Your task to perform on an android device: manage bookmarks in the chrome app Image 0: 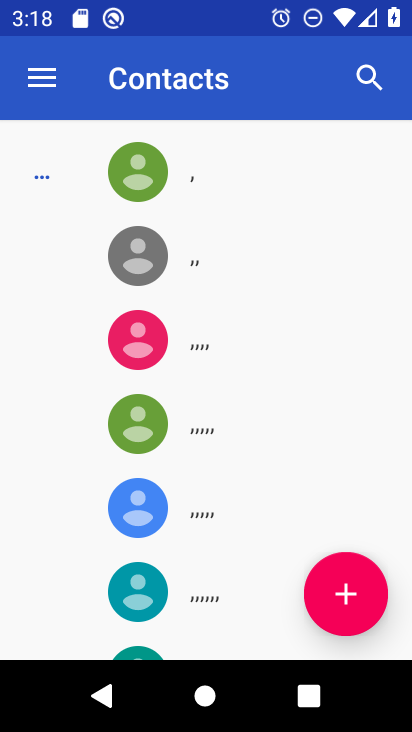
Step 0: press home button
Your task to perform on an android device: manage bookmarks in the chrome app Image 1: 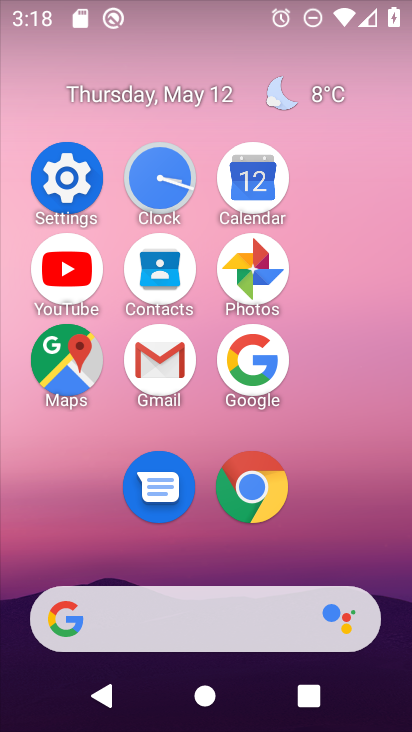
Step 1: click (244, 501)
Your task to perform on an android device: manage bookmarks in the chrome app Image 2: 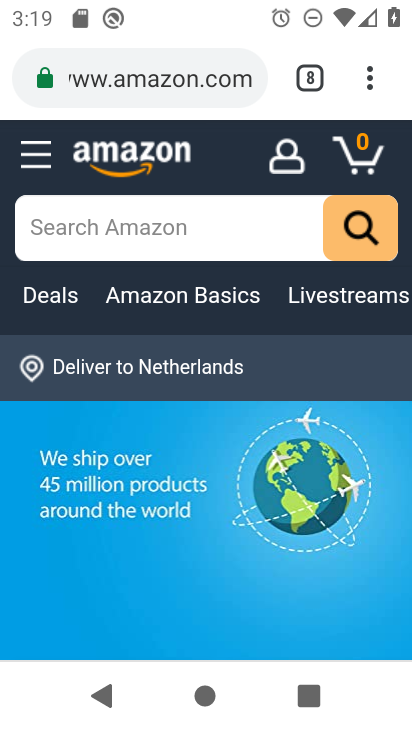
Step 2: click (365, 72)
Your task to perform on an android device: manage bookmarks in the chrome app Image 3: 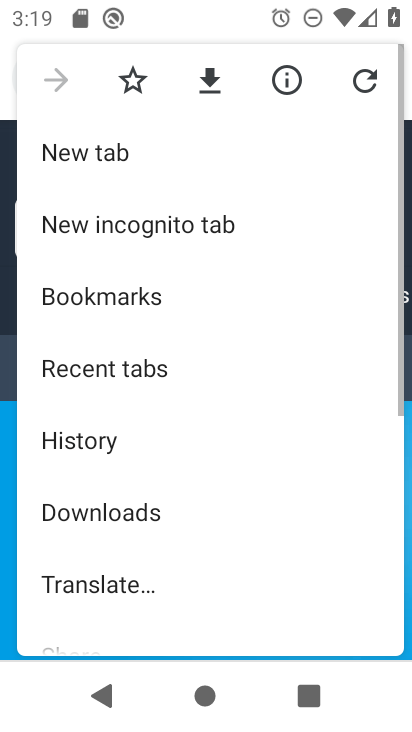
Step 3: drag from (129, 553) to (151, 169)
Your task to perform on an android device: manage bookmarks in the chrome app Image 4: 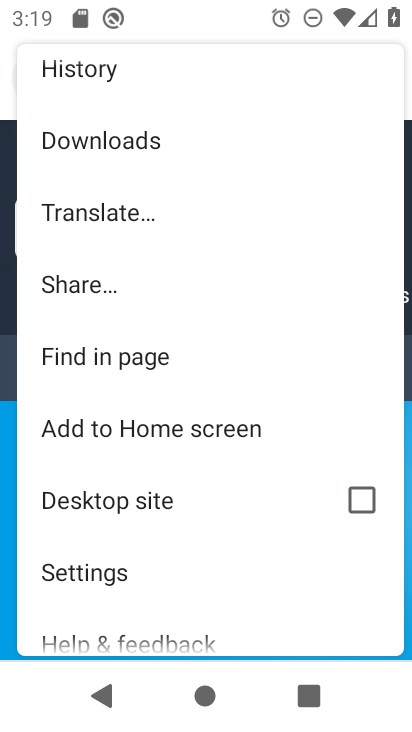
Step 4: drag from (214, 164) to (228, 527)
Your task to perform on an android device: manage bookmarks in the chrome app Image 5: 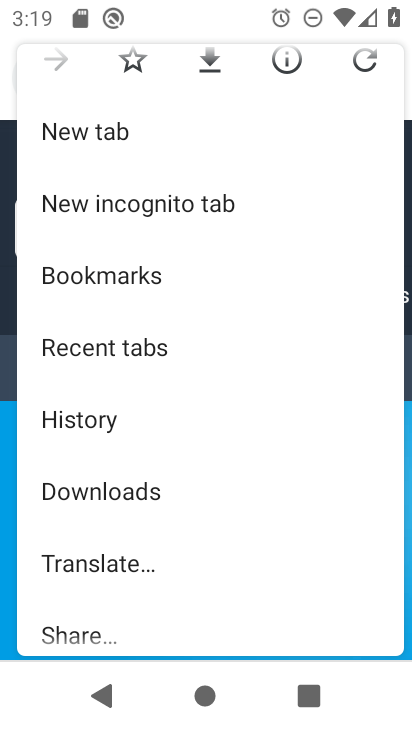
Step 5: click (199, 269)
Your task to perform on an android device: manage bookmarks in the chrome app Image 6: 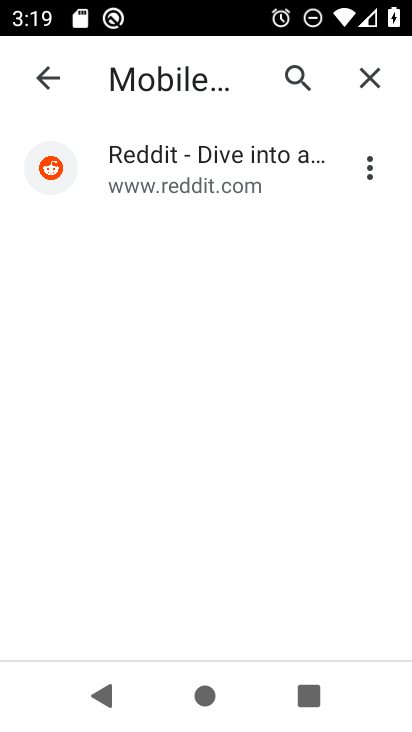
Step 6: click (357, 167)
Your task to perform on an android device: manage bookmarks in the chrome app Image 7: 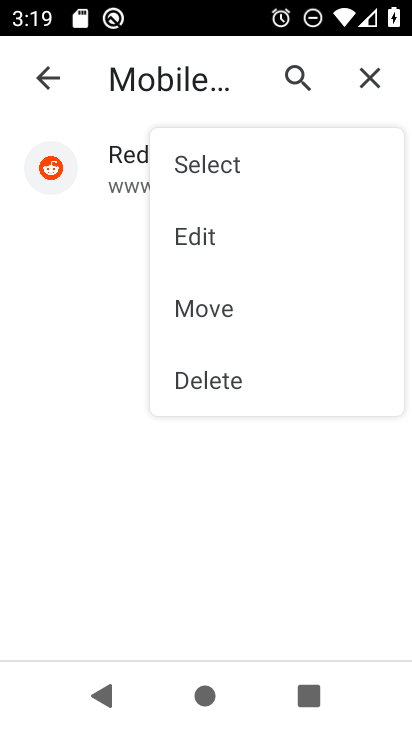
Step 7: click (271, 294)
Your task to perform on an android device: manage bookmarks in the chrome app Image 8: 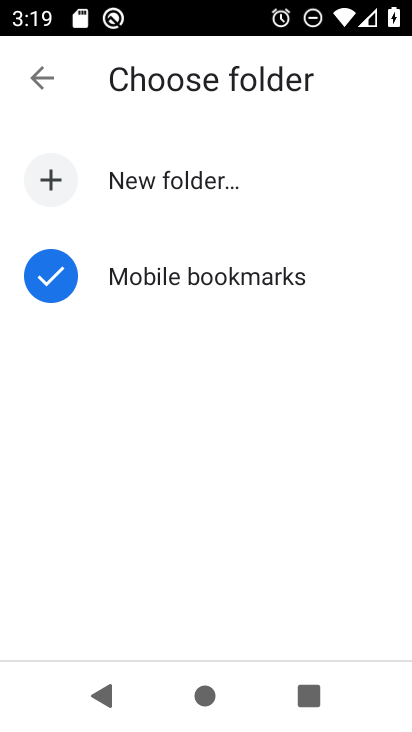
Step 8: click (225, 204)
Your task to perform on an android device: manage bookmarks in the chrome app Image 9: 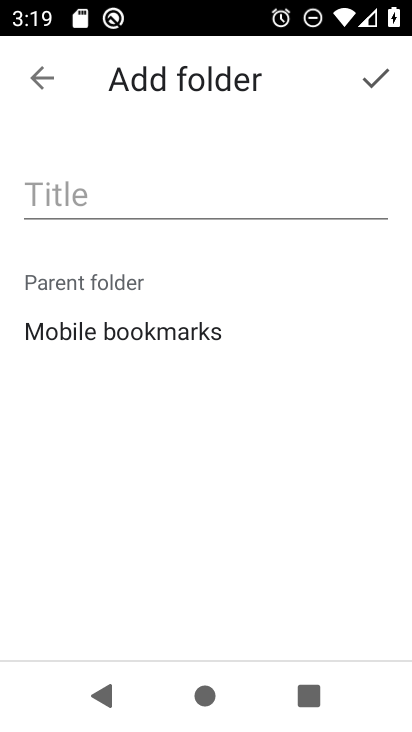
Step 9: click (225, 204)
Your task to perform on an android device: manage bookmarks in the chrome app Image 10: 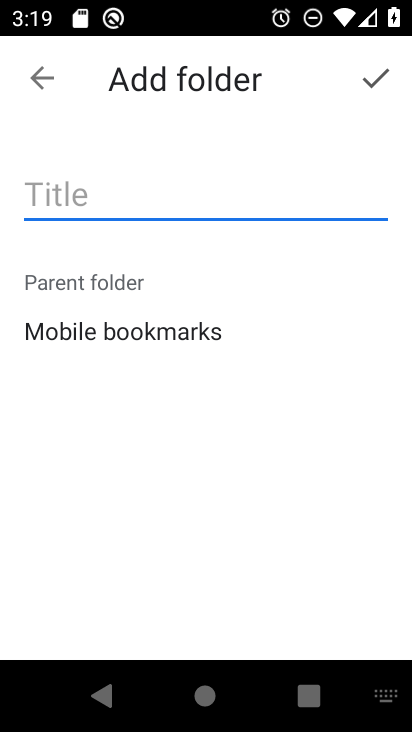
Step 10: type "kk"
Your task to perform on an android device: manage bookmarks in the chrome app Image 11: 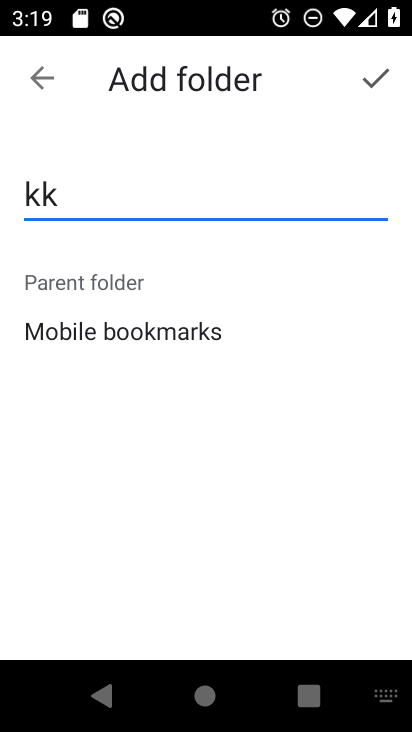
Step 11: click (375, 83)
Your task to perform on an android device: manage bookmarks in the chrome app Image 12: 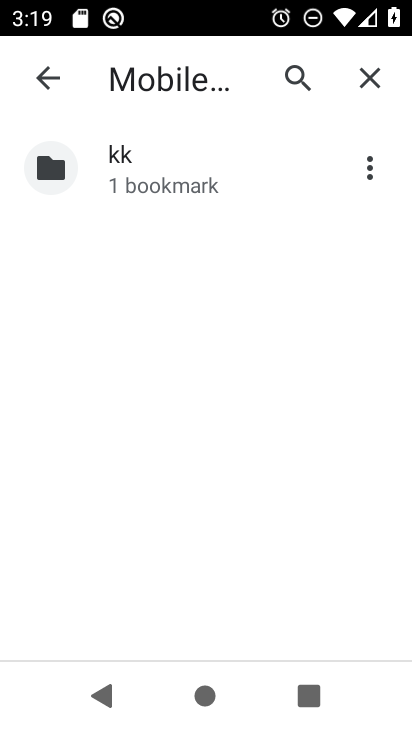
Step 12: task complete